Your task to perform on an android device: toggle priority inbox in the gmail app Image 0: 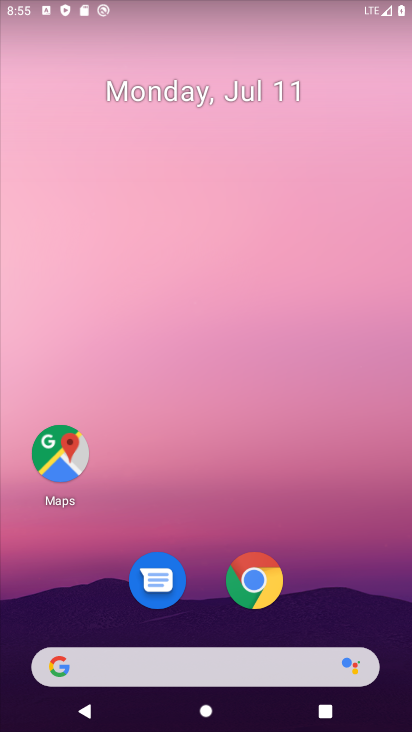
Step 0: drag from (347, 519) to (277, 56)
Your task to perform on an android device: toggle priority inbox in the gmail app Image 1: 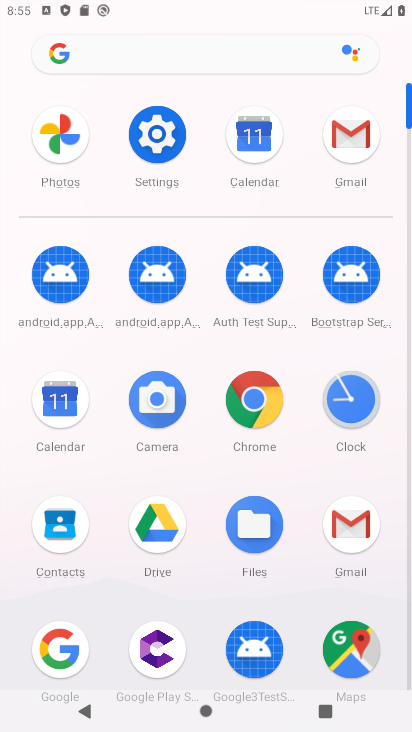
Step 1: click (338, 138)
Your task to perform on an android device: toggle priority inbox in the gmail app Image 2: 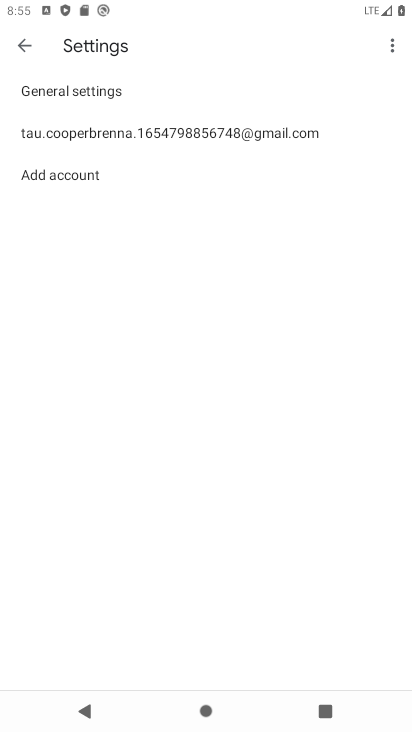
Step 2: click (304, 129)
Your task to perform on an android device: toggle priority inbox in the gmail app Image 3: 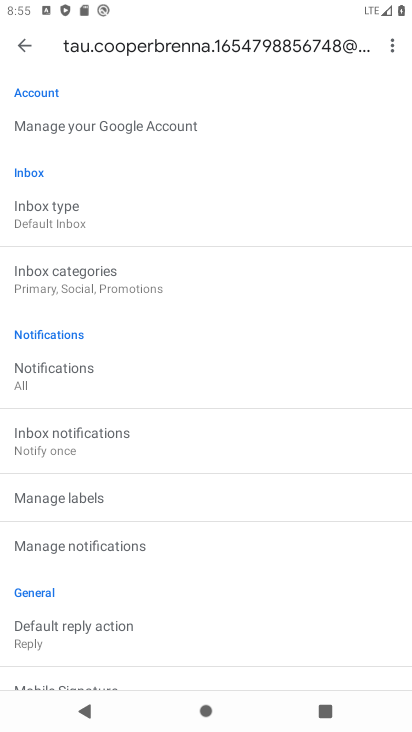
Step 3: click (61, 208)
Your task to perform on an android device: toggle priority inbox in the gmail app Image 4: 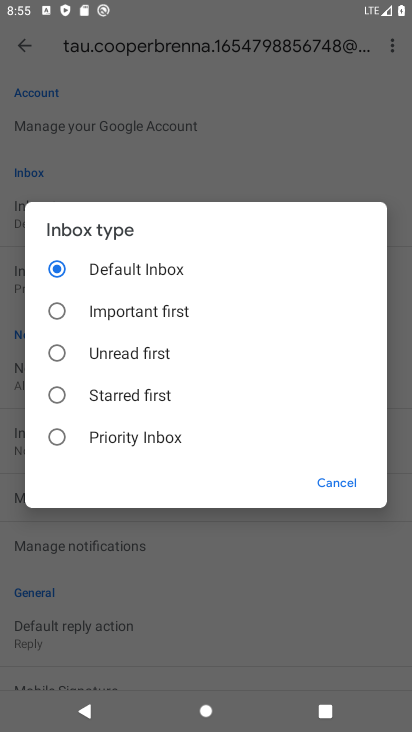
Step 4: click (62, 429)
Your task to perform on an android device: toggle priority inbox in the gmail app Image 5: 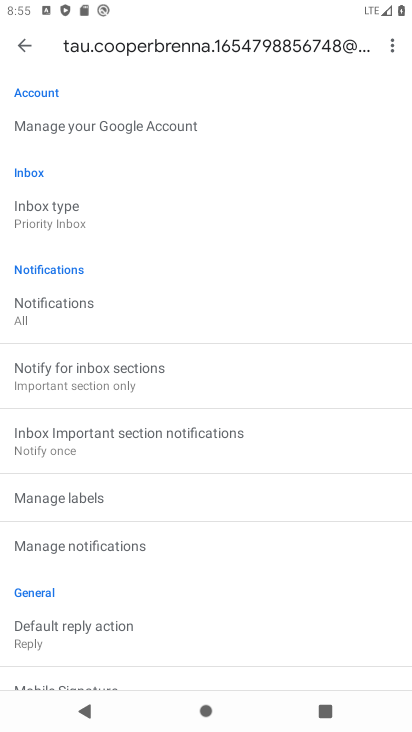
Step 5: task complete